Your task to perform on an android device: Open location settings Image 0: 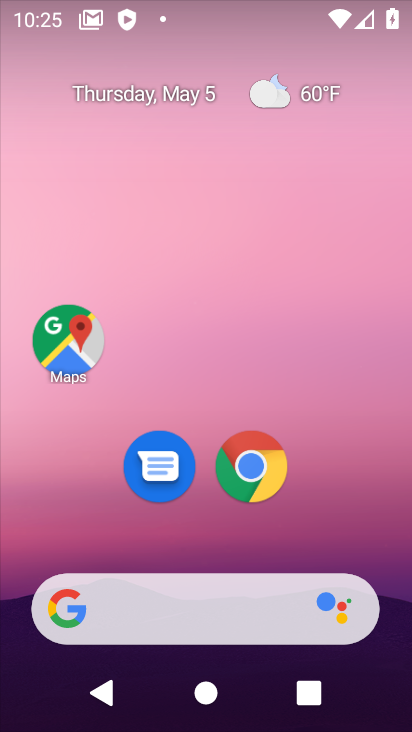
Step 0: drag from (189, 573) to (203, 211)
Your task to perform on an android device: Open location settings Image 1: 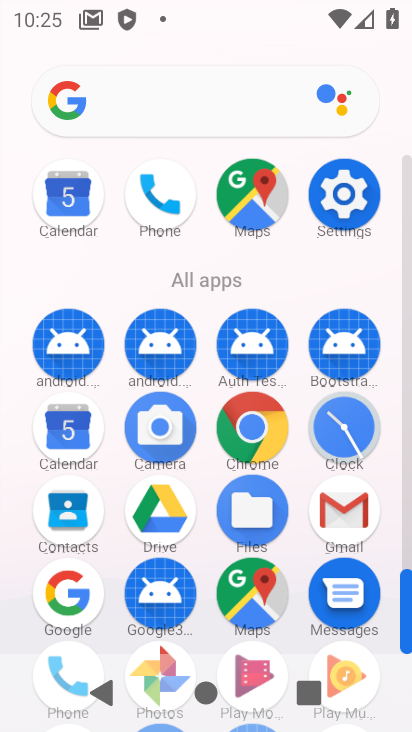
Step 1: click (340, 192)
Your task to perform on an android device: Open location settings Image 2: 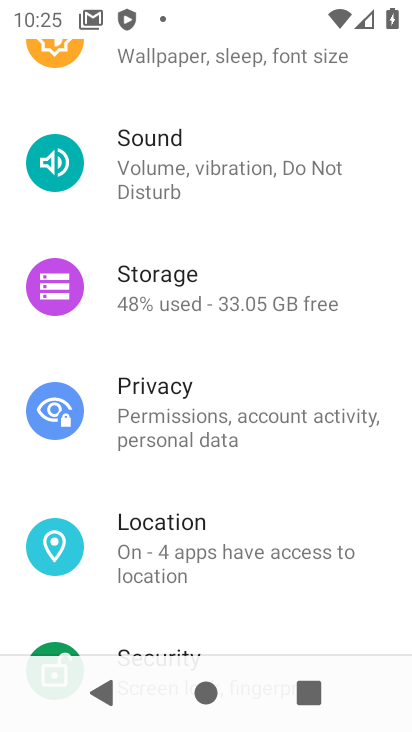
Step 2: click (178, 544)
Your task to perform on an android device: Open location settings Image 3: 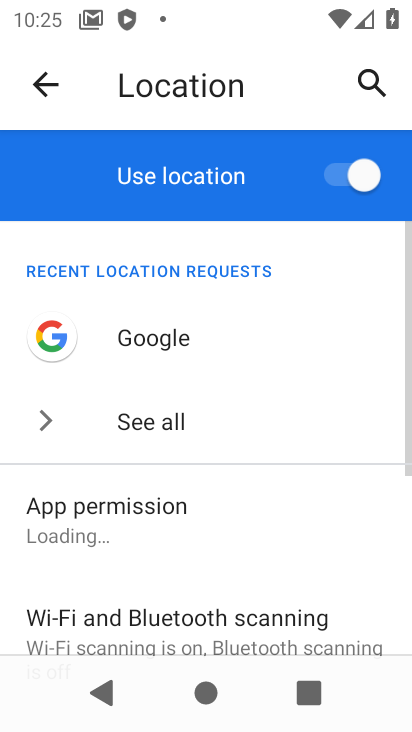
Step 3: task complete